Your task to perform on an android device: Search for Italian restaurants on Maps Image 0: 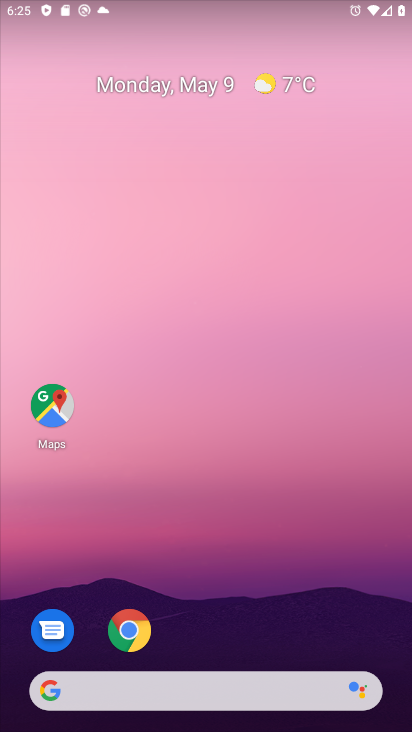
Step 0: drag from (219, 657) to (205, 166)
Your task to perform on an android device: Search for Italian restaurants on Maps Image 1: 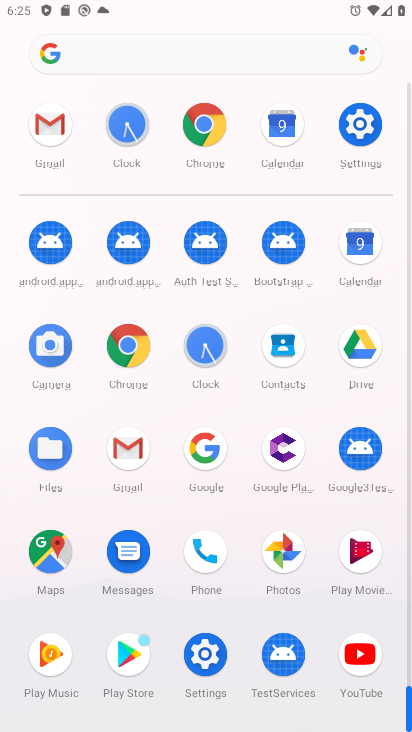
Step 1: click (49, 588)
Your task to perform on an android device: Search for Italian restaurants on Maps Image 2: 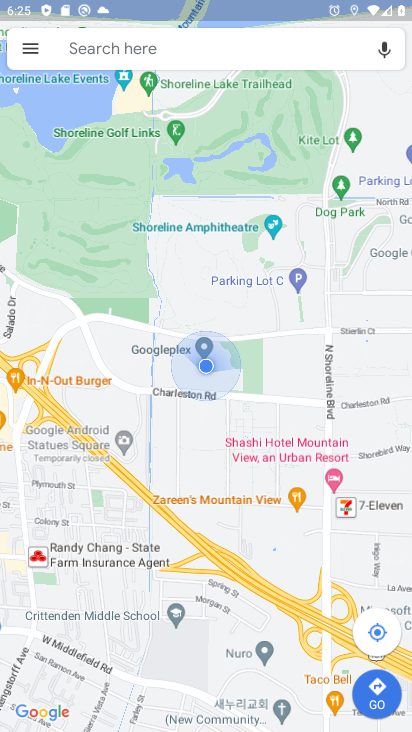
Step 2: click (161, 49)
Your task to perform on an android device: Search for Italian restaurants on Maps Image 3: 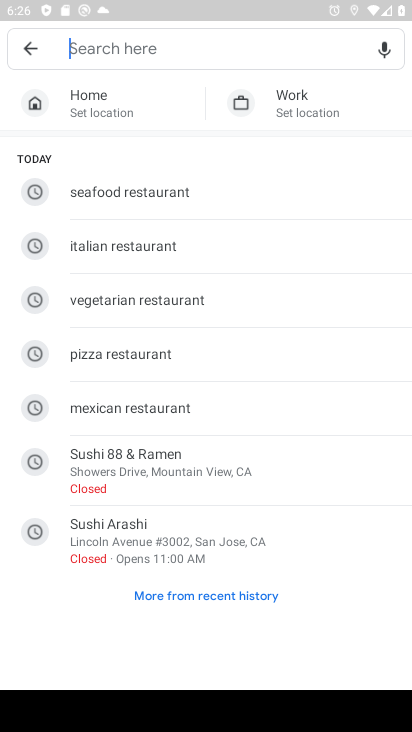
Step 3: click (126, 256)
Your task to perform on an android device: Search for Italian restaurants on Maps Image 4: 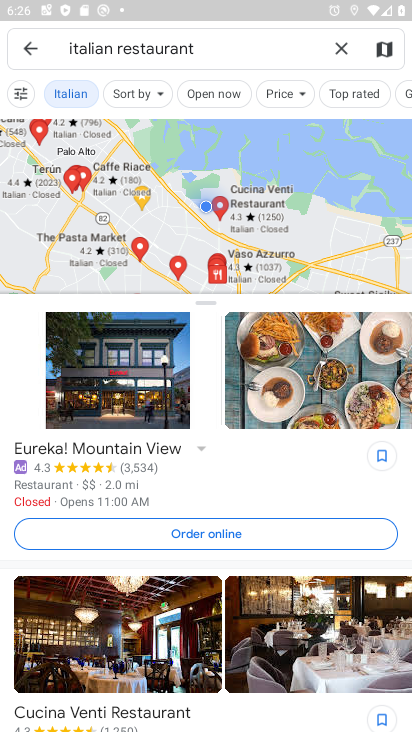
Step 4: task complete